Your task to perform on an android device: Search for a small bookcase on Ikea.com Image 0: 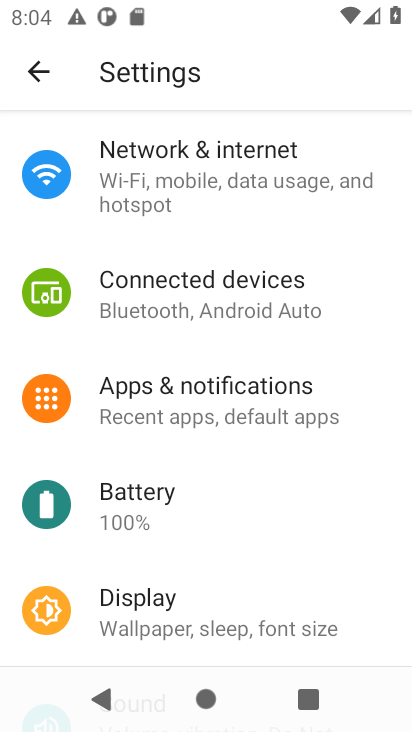
Step 0: press home button
Your task to perform on an android device: Search for a small bookcase on Ikea.com Image 1: 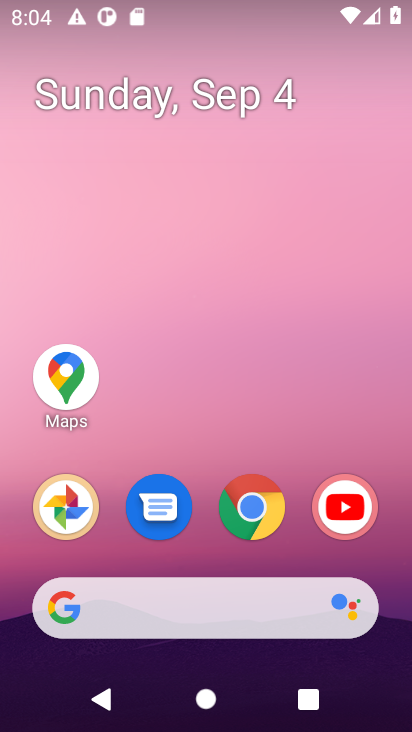
Step 1: click (247, 506)
Your task to perform on an android device: Search for a small bookcase on Ikea.com Image 2: 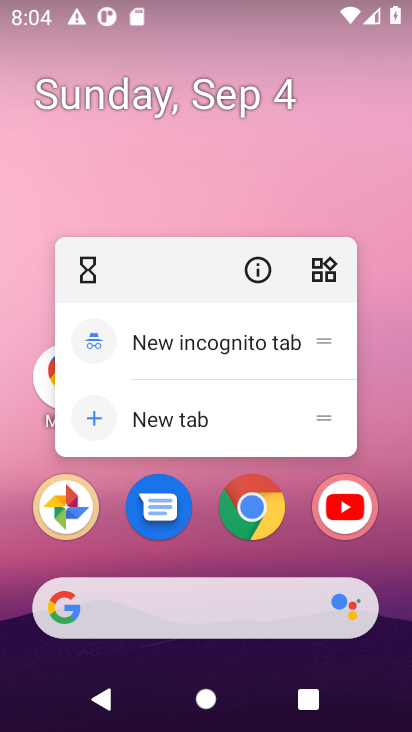
Step 2: click (251, 506)
Your task to perform on an android device: Search for a small bookcase on Ikea.com Image 3: 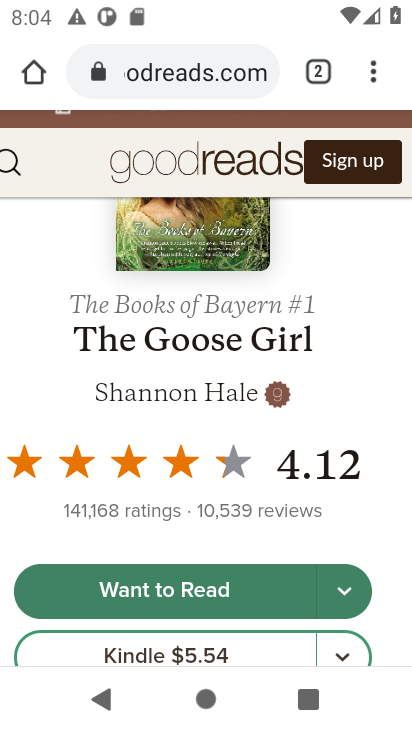
Step 3: click (170, 49)
Your task to perform on an android device: Search for a small bookcase on Ikea.com Image 4: 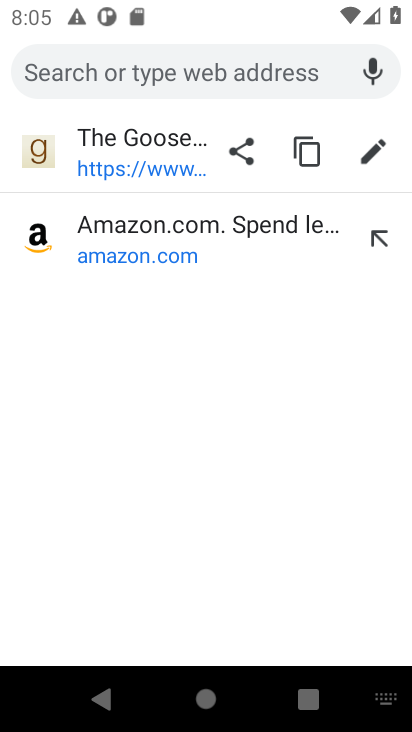
Step 4: type " Ikea.com"
Your task to perform on an android device: Search for a small bookcase on Ikea.com Image 5: 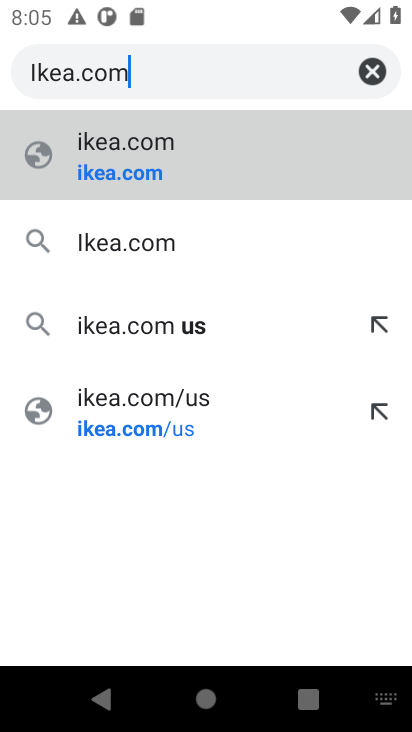
Step 5: click (133, 147)
Your task to perform on an android device: Search for a small bookcase on Ikea.com Image 6: 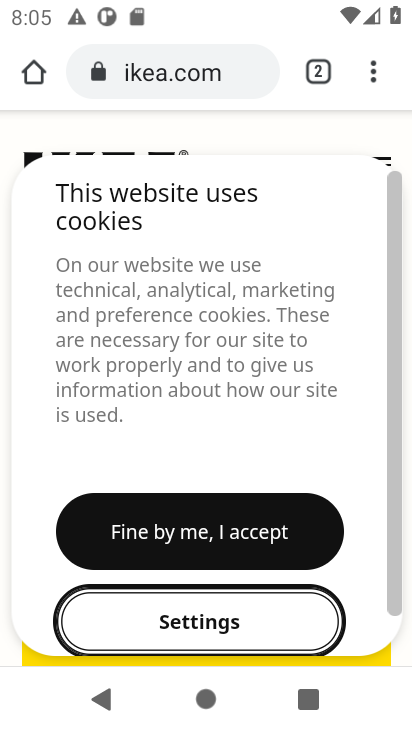
Step 6: click (177, 533)
Your task to perform on an android device: Search for a small bookcase on Ikea.com Image 7: 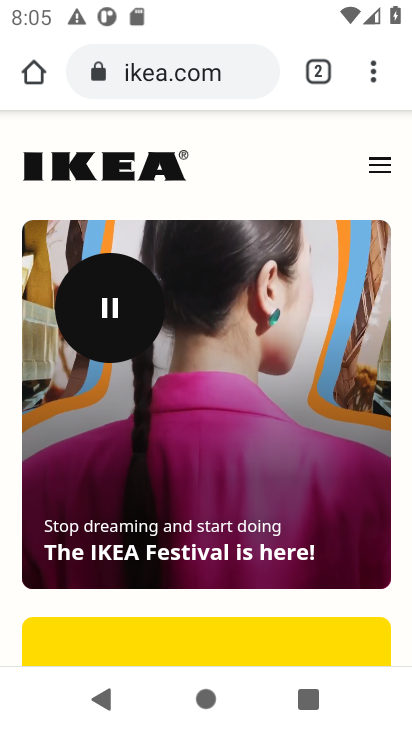
Step 7: drag from (303, 409) to (278, 196)
Your task to perform on an android device: Search for a small bookcase on Ikea.com Image 8: 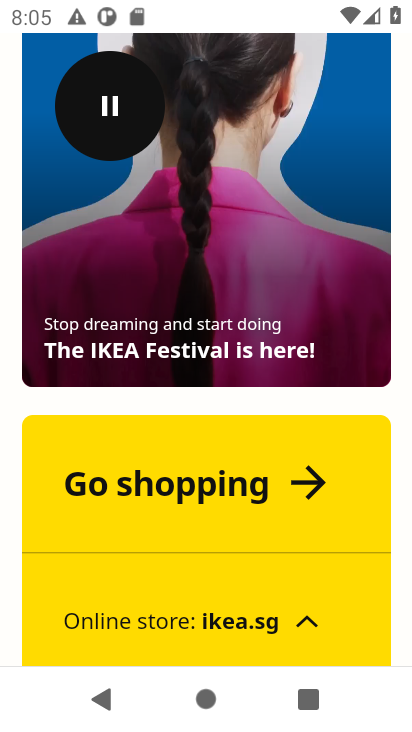
Step 8: drag from (315, 576) to (309, 175)
Your task to perform on an android device: Search for a small bookcase on Ikea.com Image 9: 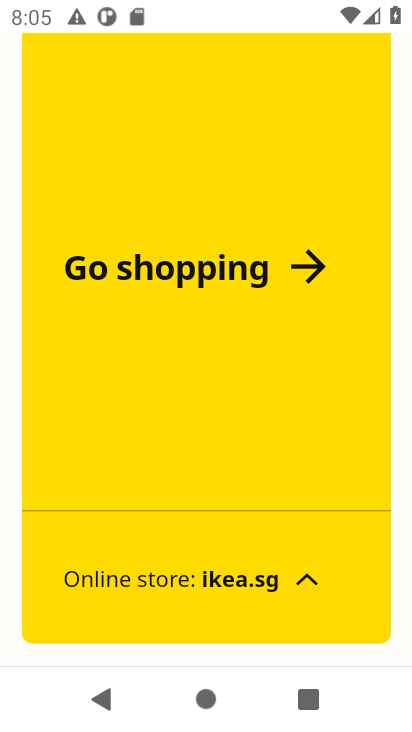
Step 9: click (245, 278)
Your task to perform on an android device: Search for a small bookcase on Ikea.com Image 10: 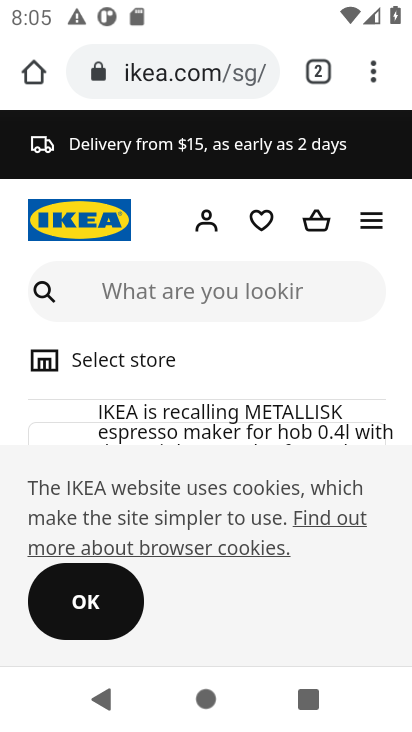
Step 10: click (153, 282)
Your task to perform on an android device: Search for a small bookcase on Ikea.com Image 11: 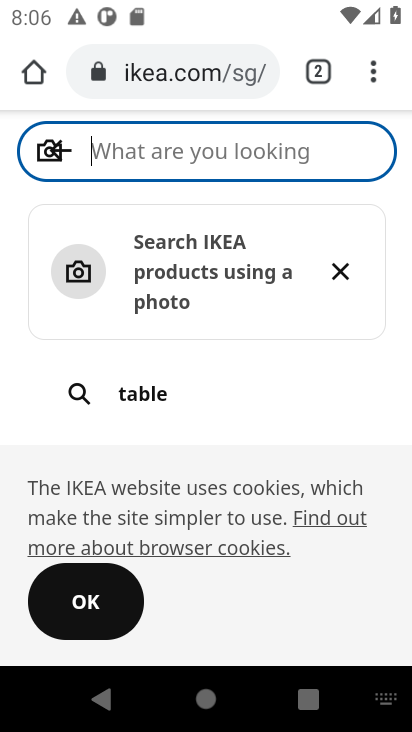
Step 11: type "small bookcase"
Your task to perform on an android device: Search for a small bookcase on Ikea.com Image 12: 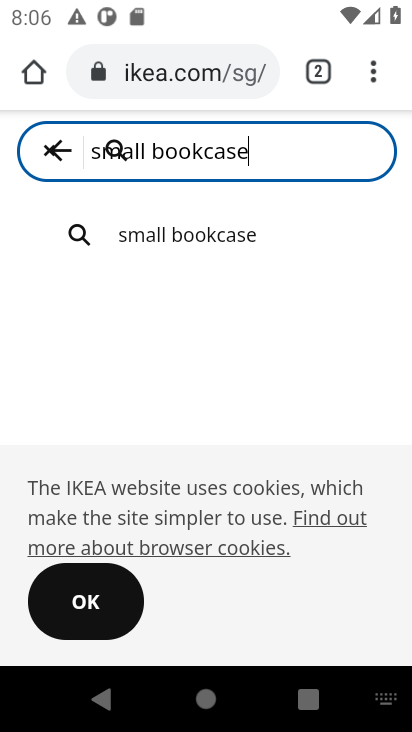
Step 12: click (196, 231)
Your task to perform on an android device: Search for a small bookcase on Ikea.com Image 13: 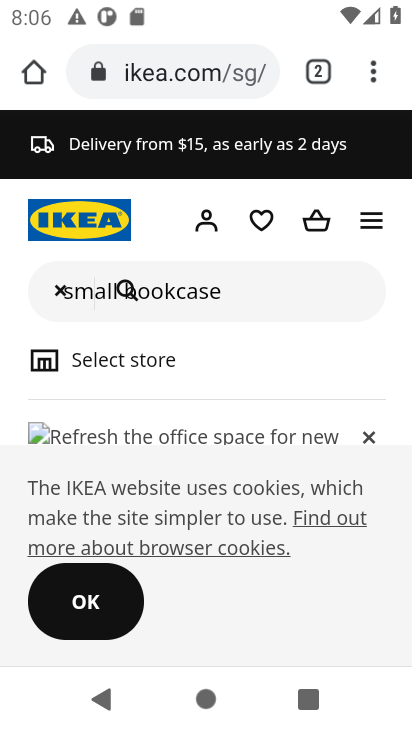
Step 13: click (369, 435)
Your task to perform on an android device: Search for a small bookcase on Ikea.com Image 14: 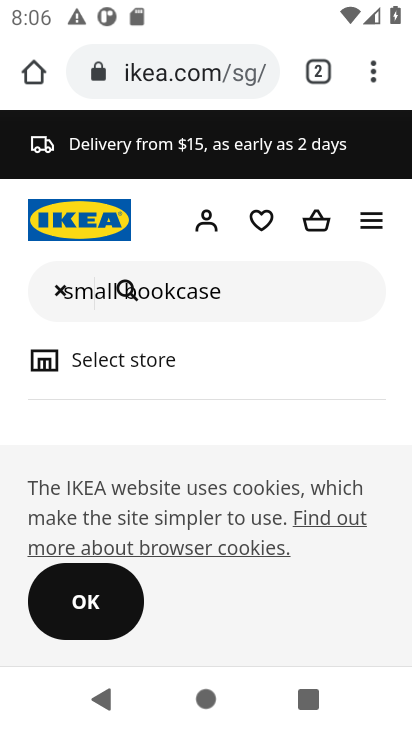
Step 14: click (83, 602)
Your task to perform on an android device: Search for a small bookcase on Ikea.com Image 15: 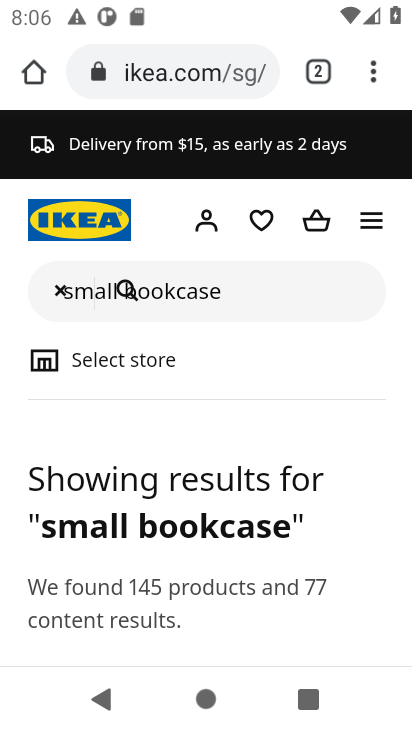
Step 15: task complete